Your task to perform on an android device: Clear all items from cart on bestbuy.com. Add "panasonic triple a" to the cart on bestbuy.com Image 0: 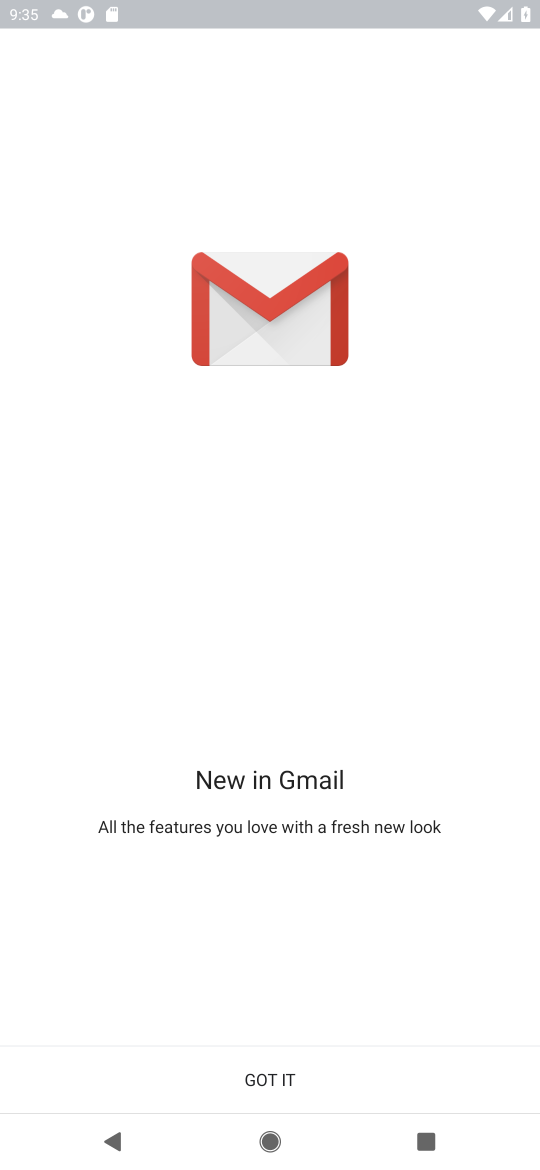
Step 0: press home button
Your task to perform on an android device: Clear all items from cart on bestbuy.com. Add "panasonic triple a" to the cart on bestbuy.com Image 1: 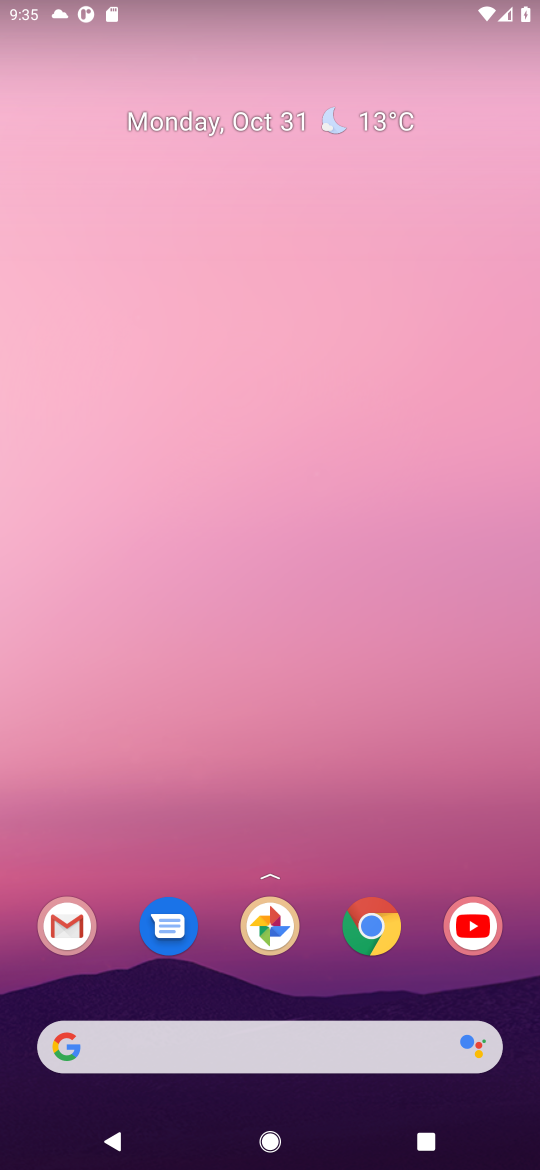
Step 1: click (373, 927)
Your task to perform on an android device: Clear all items from cart on bestbuy.com. Add "panasonic triple a" to the cart on bestbuy.com Image 2: 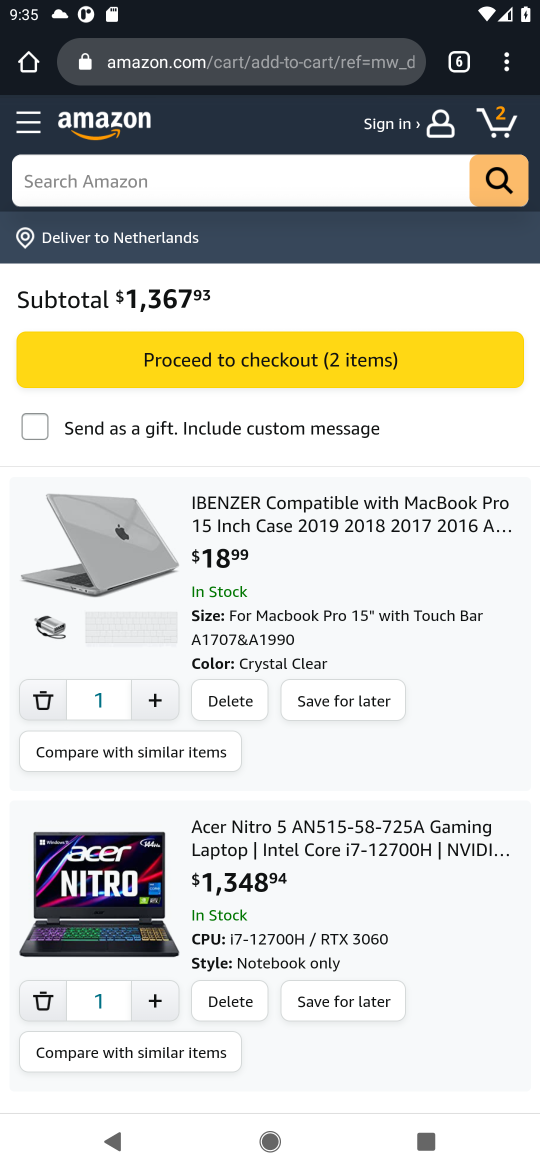
Step 2: click (466, 61)
Your task to perform on an android device: Clear all items from cart on bestbuy.com. Add "panasonic triple a" to the cart on bestbuy.com Image 3: 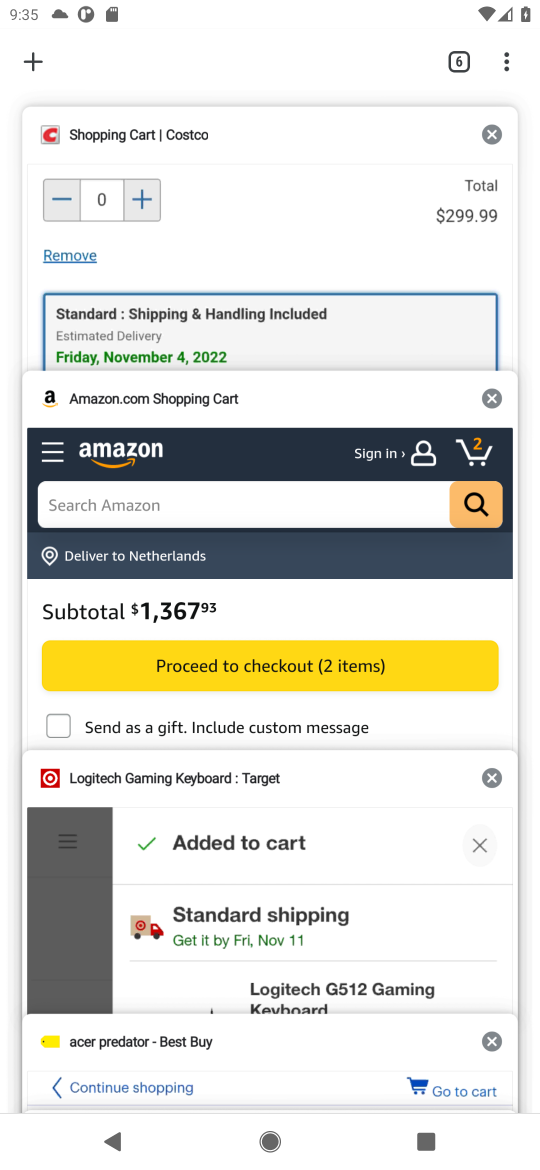
Step 3: click (193, 1064)
Your task to perform on an android device: Clear all items from cart on bestbuy.com. Add "panasonic triple a" to the cart on bestbuy.com Image 4: 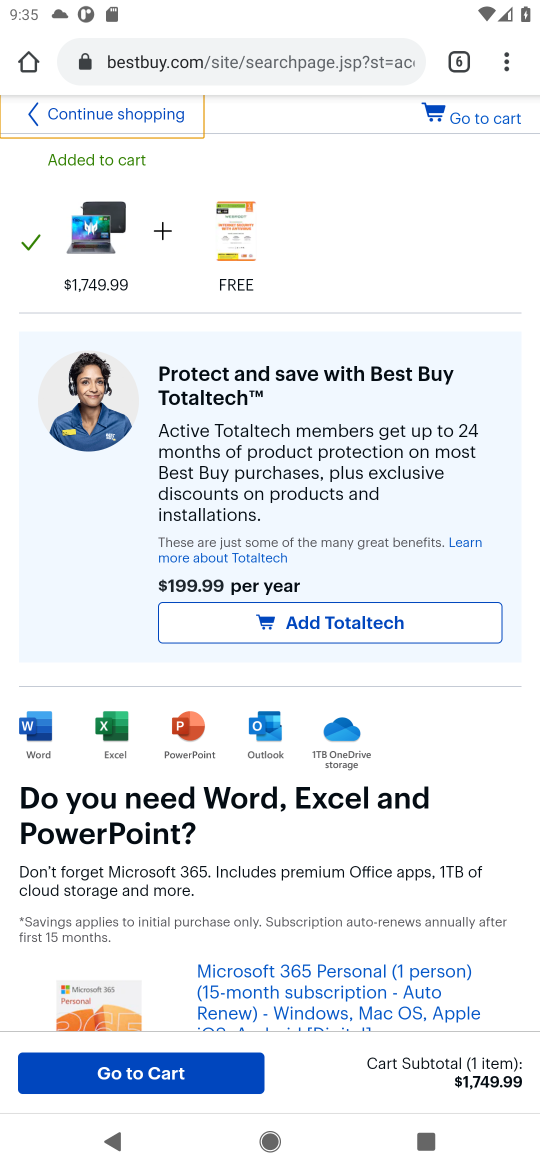
Step 4: click (495, 116)
Your task to perform on an android device: Clear all items from cart on bestbuy.com. Add "panasonic triple a" to the cart on bestbuy.com Image 5: 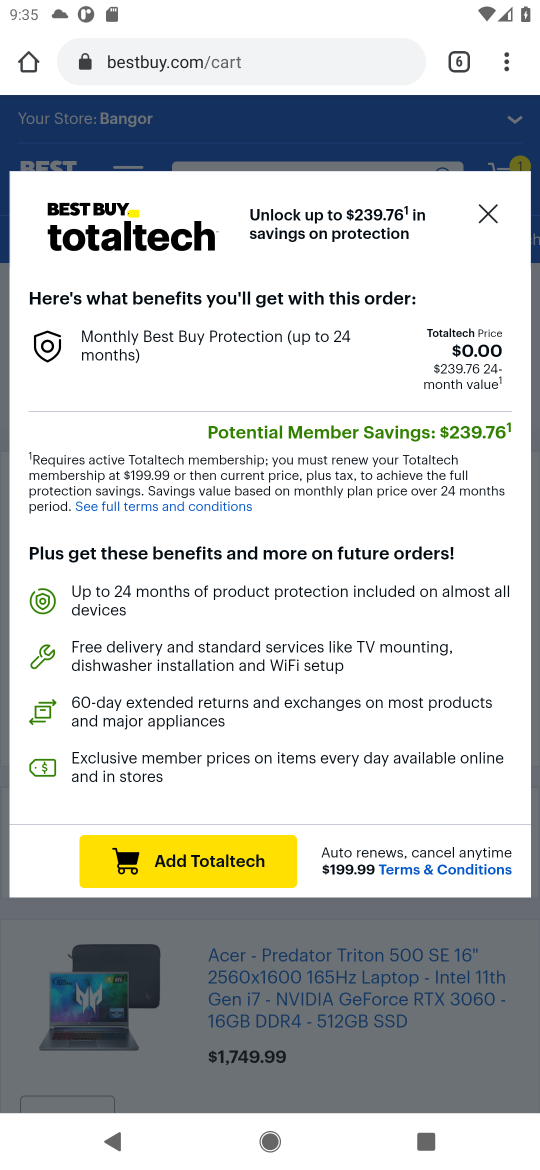
Step 5: click (489, 213)
Your task to perform on an android device: Clear all items from cart on bestbuy.com. Add "panasonic triple a" to the cart on bestbuy.com Image 6: 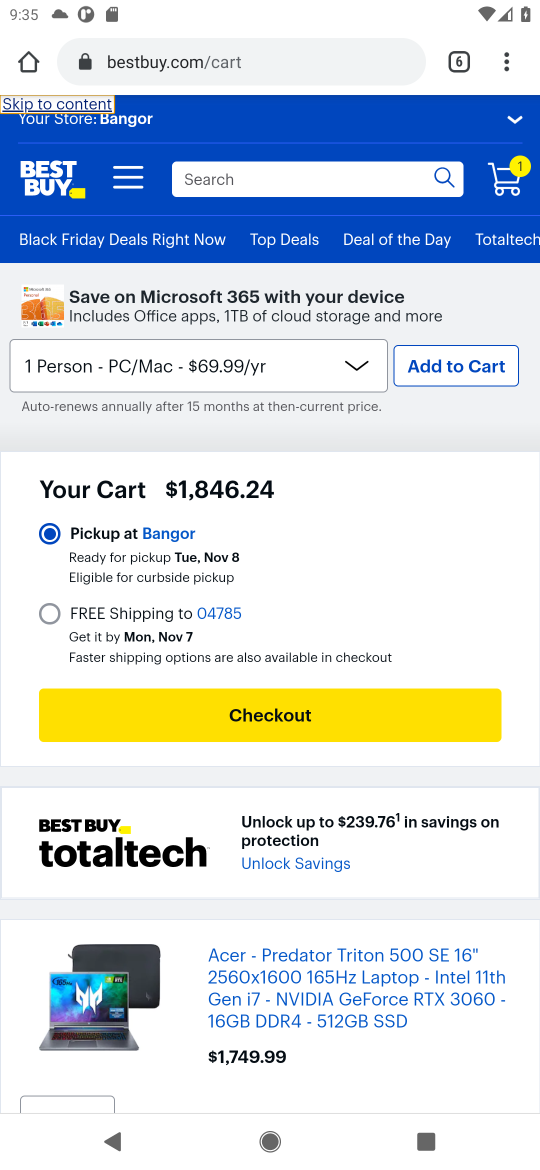
Step 6: drag from (287, 880) to (403, 184)
Your task to perform on an android device: Clear all items from cart on bestbuy.com. Add "panasonic triple a" to the cart on bestbuy.com Image 7: 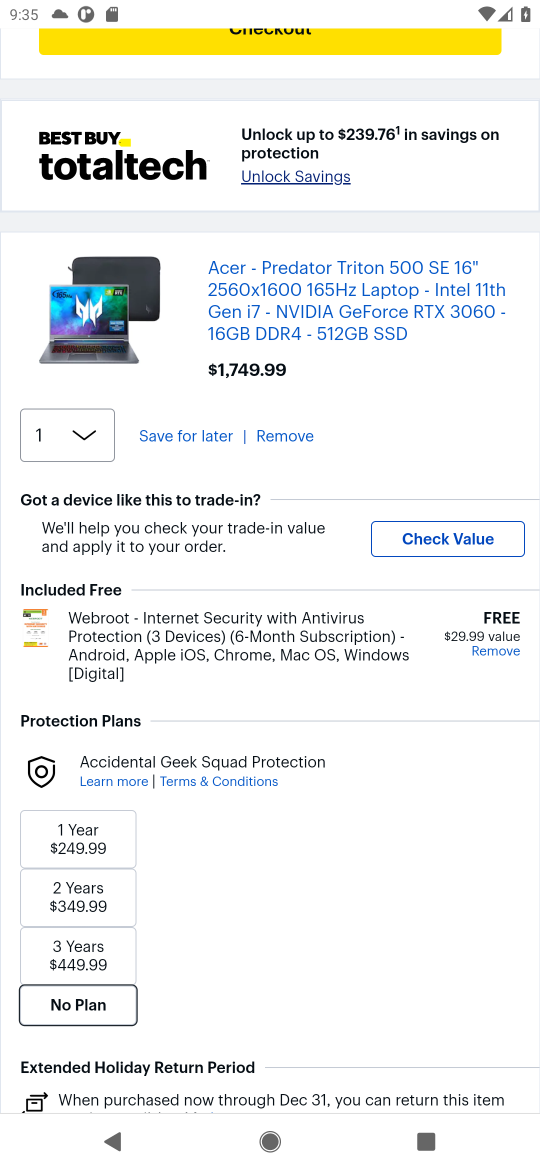
Step 7: click (278, 438)
Your task to perform on an android device: Clear all items from cart on bestbuy.com. Add "panasonic triple a" to the cart on bestbuy.com Image 8: 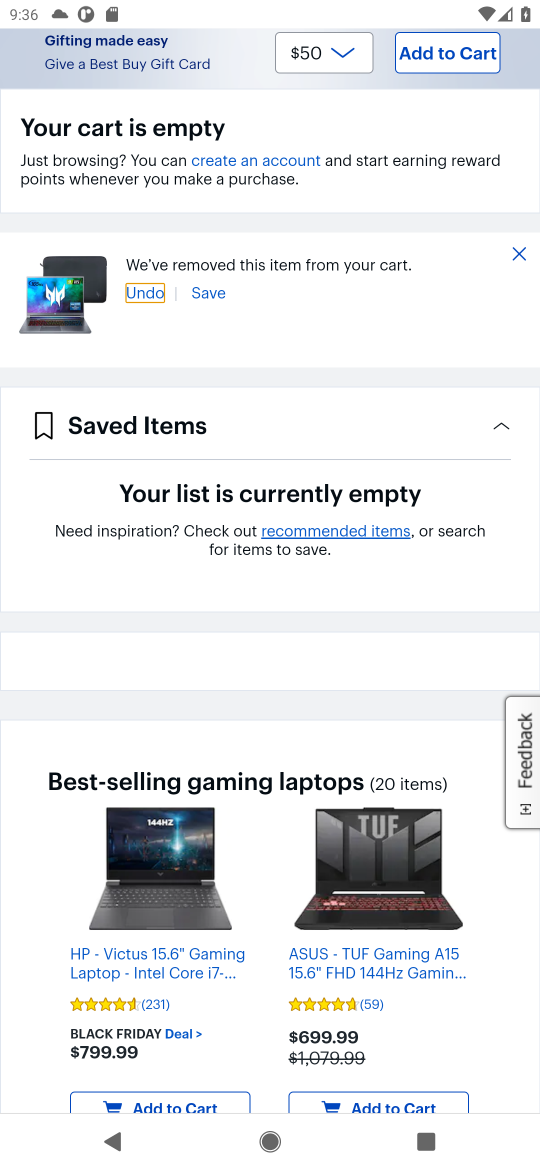
Step 8: drag from (383, 180) to (332, 635)
Your task to perform on an android device: Clear all items from cart on bestbuy.com. Add "panasonic triple a" to the cart on bestbuy.com Image 9: 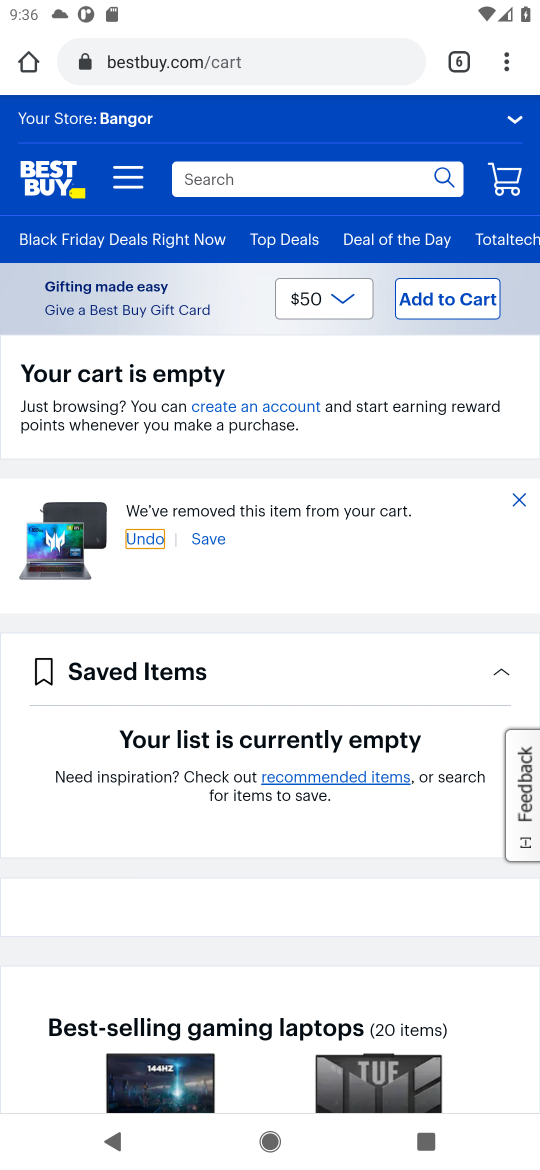
Step 9: click (244, 183)
Your task to perform on an android device: Clear all items from cart on bestbuy.com. Add "panasonic triple a" to the cart on bestbuy.com Image 10: 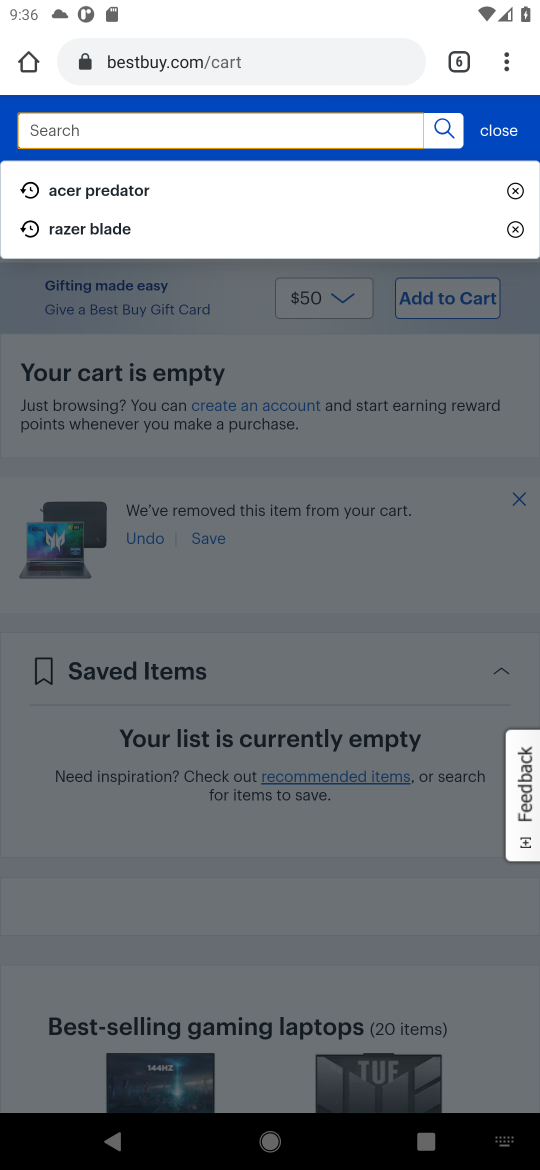
Step 10: type "panasonic triple a"
Your task to perform on an android device: Clear all items from cart on bestbuy.com. Add "panasonic triple a" to the cart on bestbuy.com Image 11: 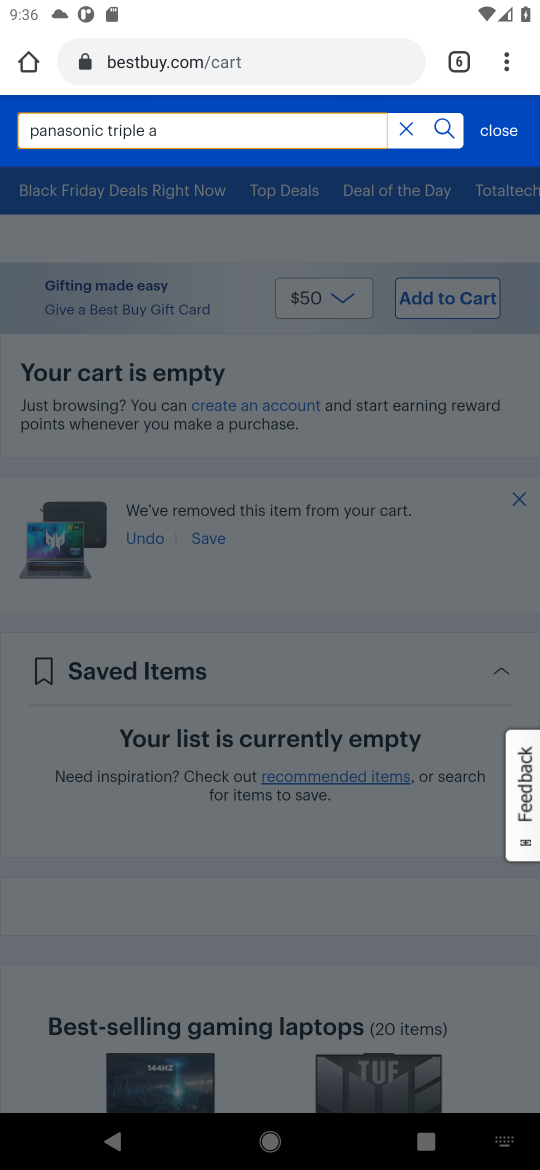
Step 11: click (287, 136)
Your task to perform on an android device: Clear all items from cart on bestbuy.com. Add "panasonic triple a" to the cart on bestbuy.com Image 12: 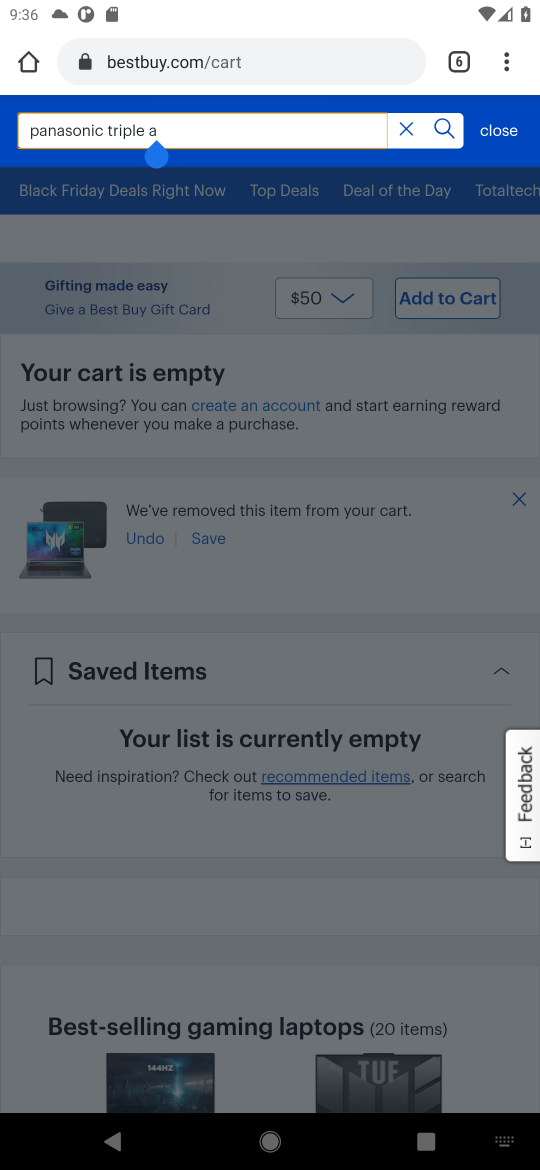
Step 12: click (441, 129)
Your task to perform on an android device: Clear all items from cart on bestbuy.com. Add "panasonic triple a" to the cart on bestbuy.com Image 13: 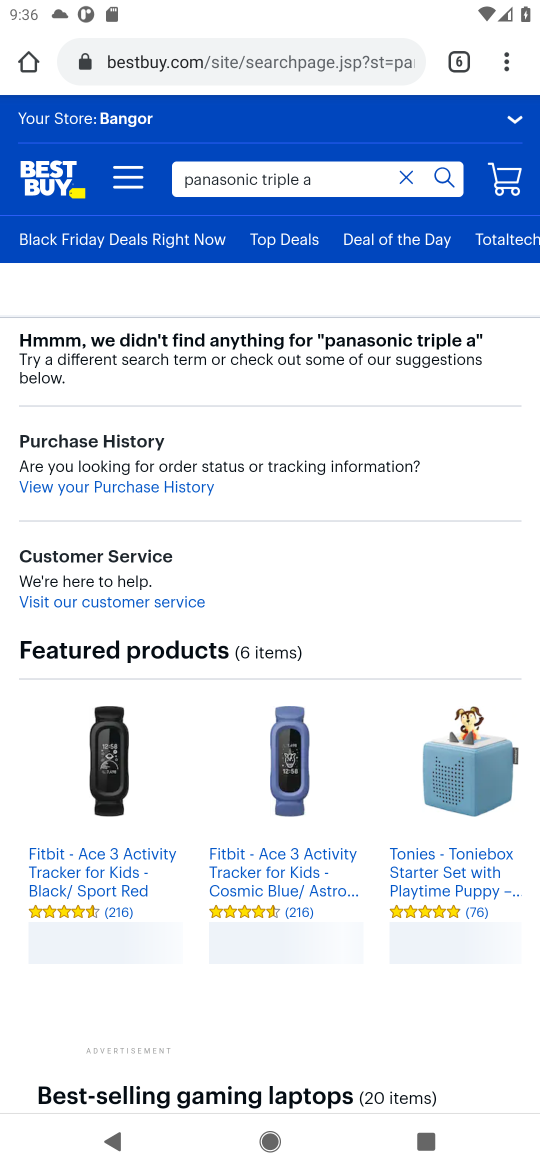
Step 13: click (409, 180)
Your task to perform on an android device: Clear all items from cart on bestbuy.com. Add "panasonic triple a" to the cart on bestbuy.com Image 14: 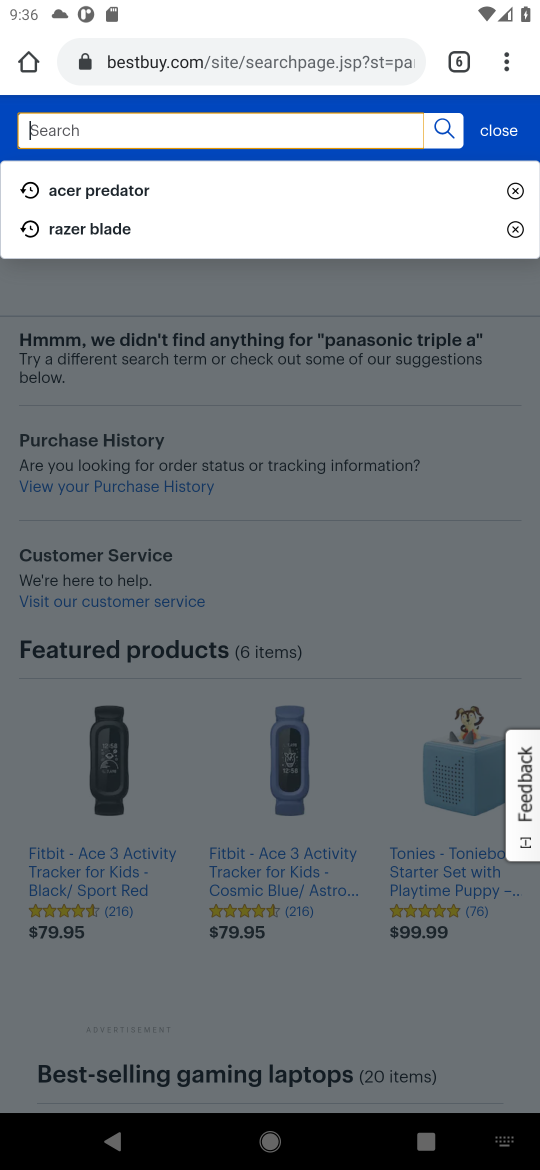
Step 14: type "panasonic "
Your task to perform on an android device: Clear all items from cart on bestbuy.com. Add "panasonic triple a" to the cart on bestbuy.com Image 15: 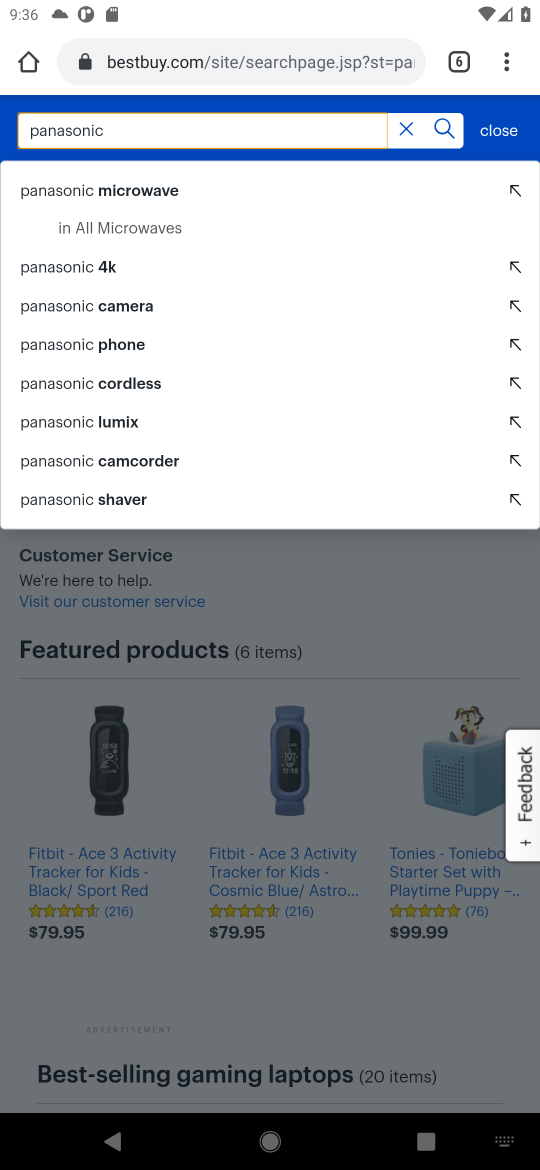
Step 15: click (55, 192)
Your task to perform on an android device: Clear all items from cart on bestbuy.com. Add "panasonic triple a" to the cart on bestbuy.com Image 16: 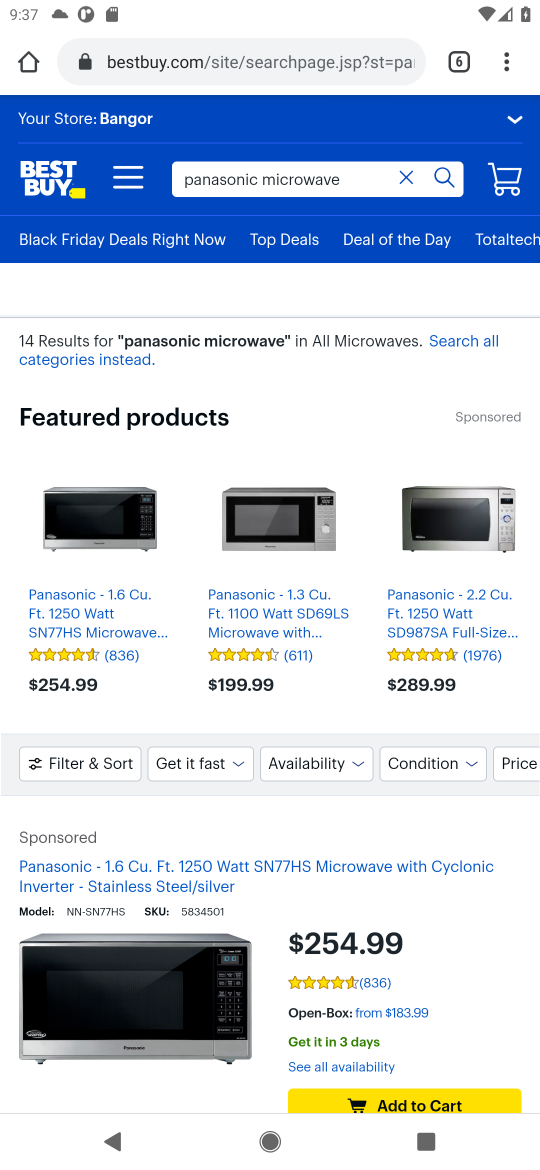
Step 16: drag from (435, 1052) to (460, 808)
Your task to perform on an android device: Clear all items from cart on bestbuy.com. Add "panasonic triple a" to the cart on bestbuy.com Image 17: 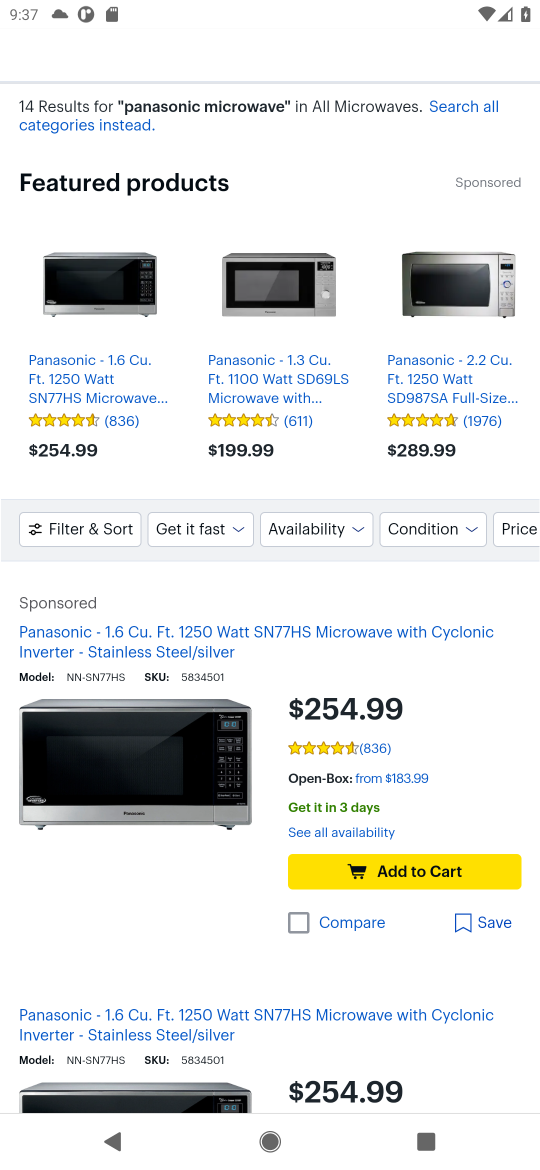
Step 17: click (415, 877)
Your task to perform on an android device: Clear all items from cart on bestbuy.com. Add "panasonic triple a" to the cart on bestbuy.com Image 18: 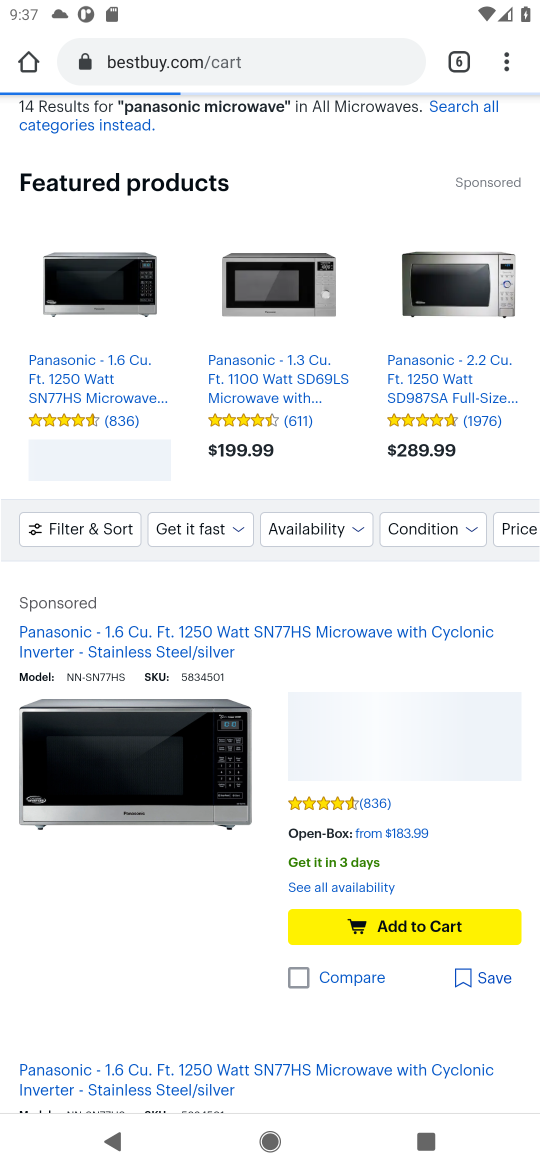
Step 18: task complete